Your task to perform on an android device: Show me popular videos on Youtube Image 0: 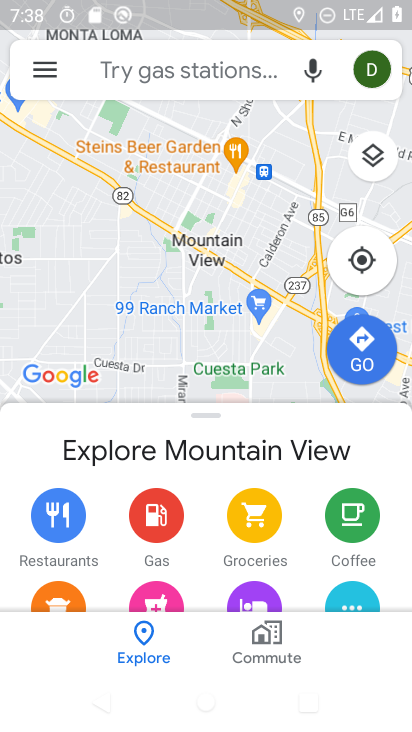
Step 0: press home button
Your task to perform on an android device: Show me popular videos on Youtube Image 1: 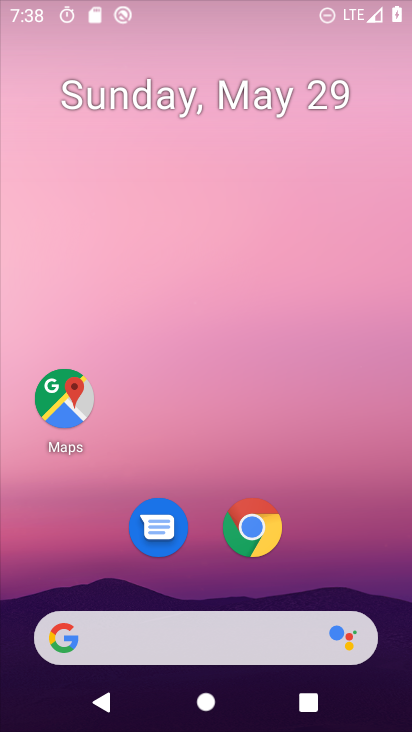
Step 1: drag from (376, 636) to (312, 11)
Your task to perform on an android device: Show me popular videos on Youtube Image 2: 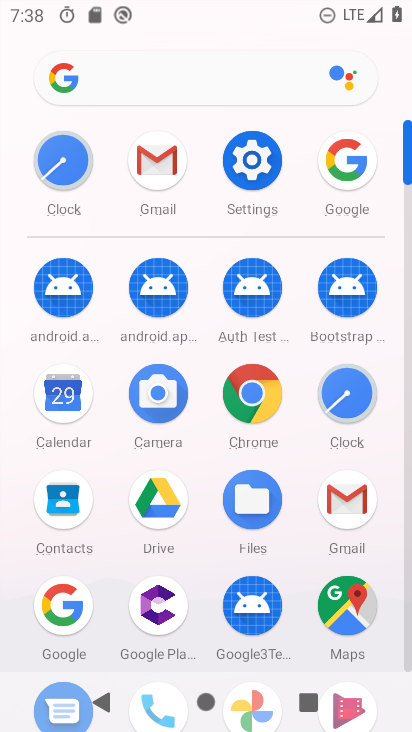
Step 2: drag from (295, 638) to (281, 111)
Your task to perform on an android device: Show me popular videos on Youtube Image 3: 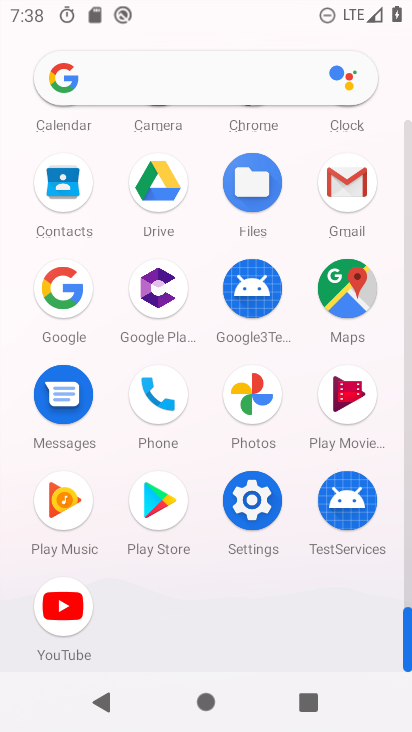
Step 3: click (61, 630)
Your task to perform on an android device: Show me popular videos on Youtube Image 4: 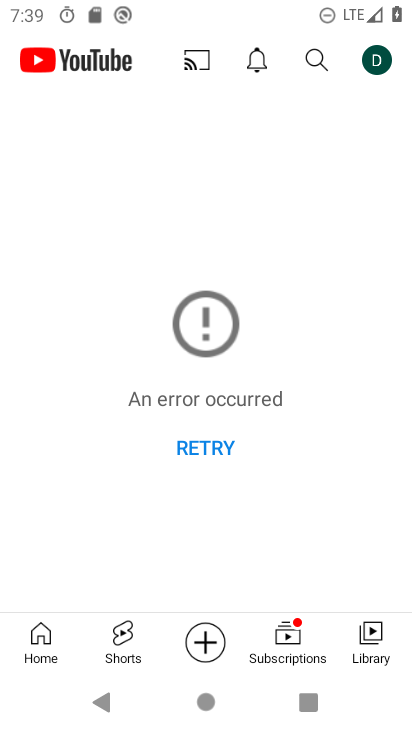
Step 4: task complete